Your task to perform on an android device: Go to accessibility settings Image 0: 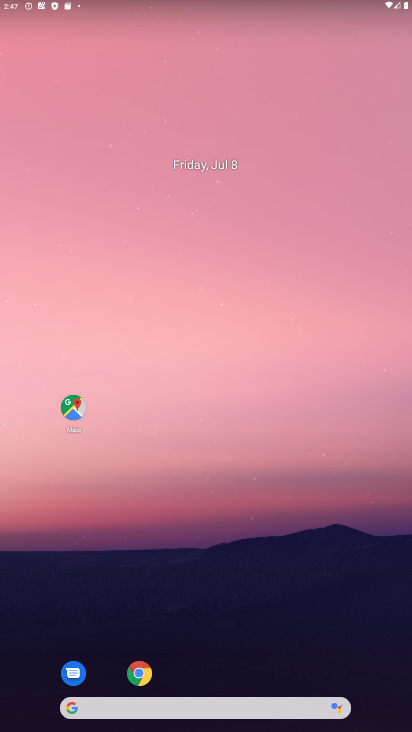
Step 0: drag from (257, 706) to (267, 312)
Your task to perform on an android device: Go to accessibility settings Image 1: 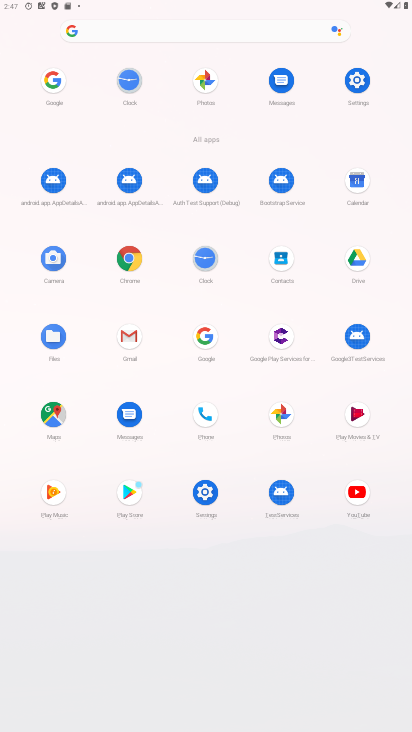
Step 1: click (358, 94)
Your task to perform on an android device: Go to accessibility settings Image 2: 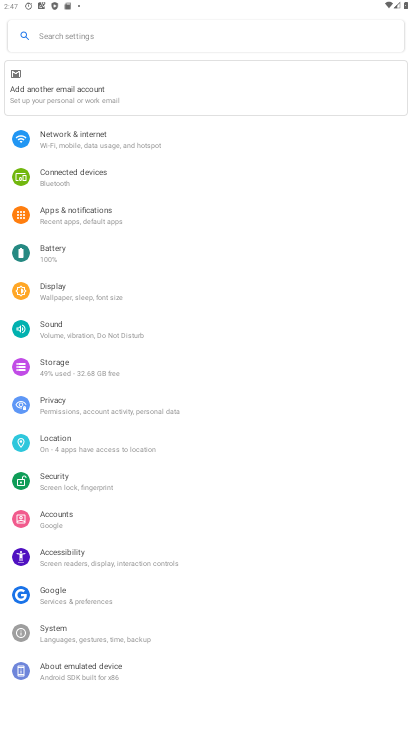
Step 2: click (110, 567)
Your task to perform on an android device: Go to accessibility settings Image 3: 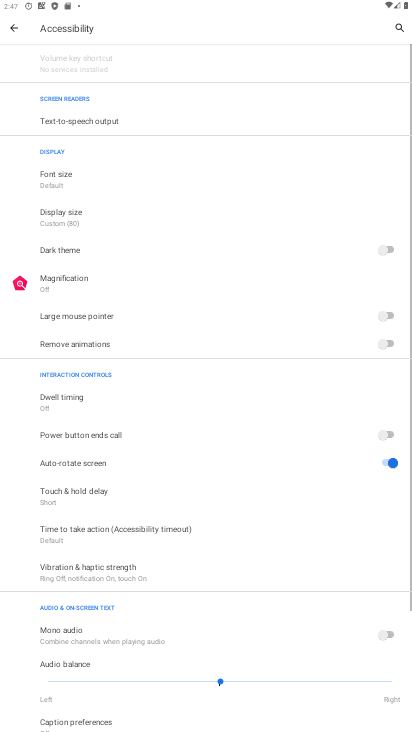
Step 3: task complete